Your task to perform on an android device: Show me productivity apps on the Play Store Image 0: 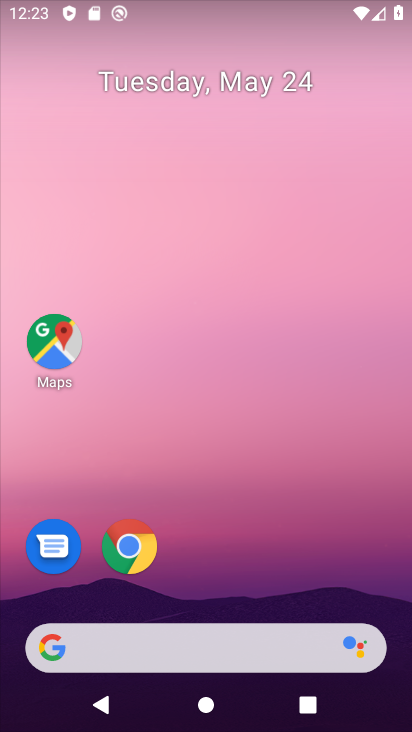
Step 0: drag from (348, 676) to (368, 23)
Your task to perform on an android device: Show me productivity apps on the Play Store Image 1: 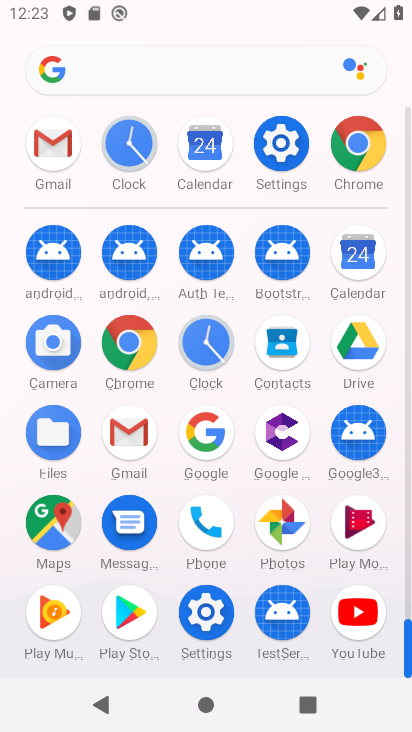
Step 1: click (121, 608)
Your task to perform on an android device: Show me productivity apps on the Play Store Image 2: 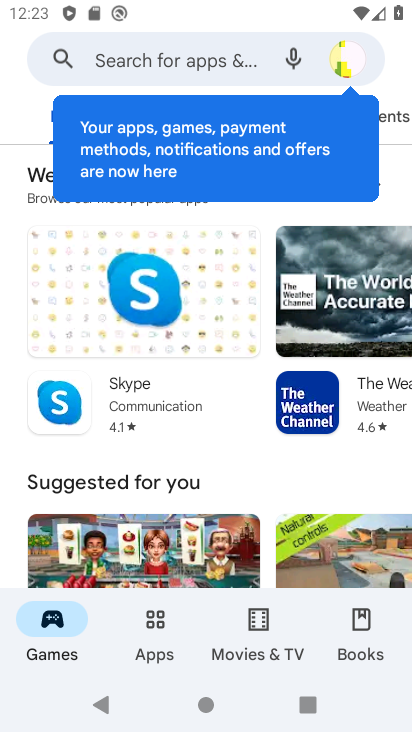
Step 2: click (153, 624)
Your task to perform on an android device: Show me productivity apps on the Play Store Image 3: 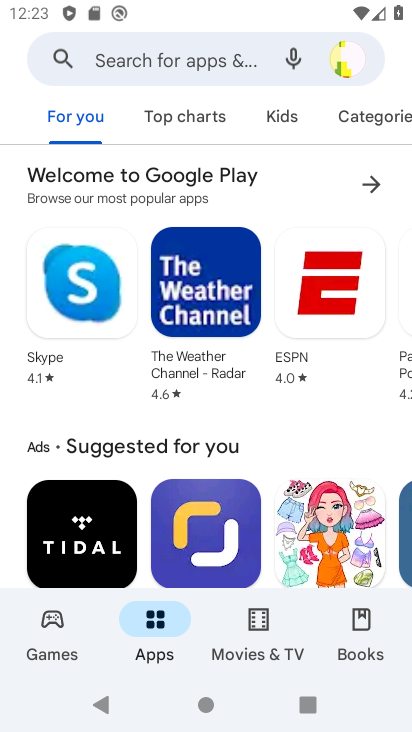
Step 3: drag from (330, 550) to (372, 67)
Your task to perform on an android device: Show me productivity apps on the Play Store Image 4: 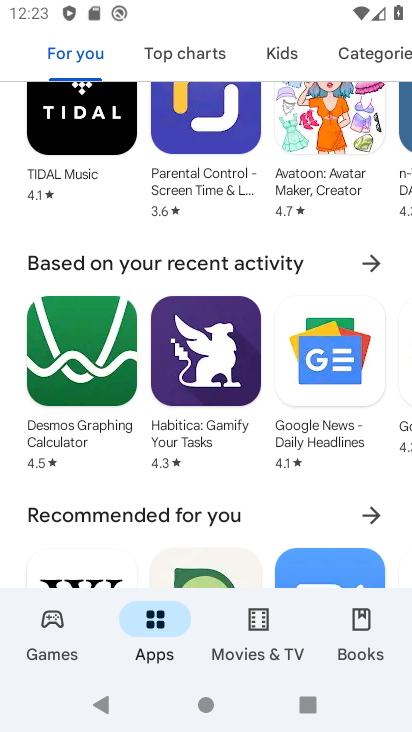
Step 4: drag from (256, 510) to (303, 27)
Your task to perform on an android device: Show me productivity apps on the Play Store Image 5: 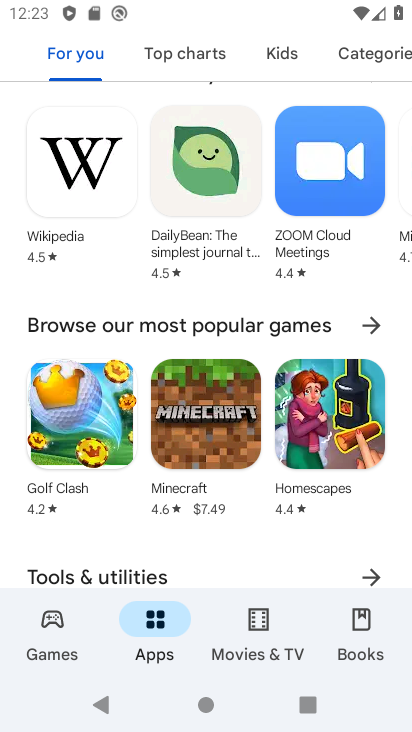
Step 5: drag from (293, 526) to (309, 140)
Your task to perform on an android device: Show me productivity apps on the Play Store Image 6: 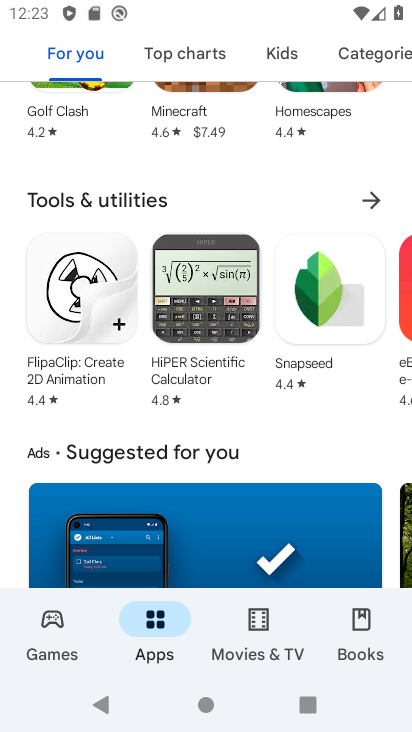
Step 6: drag from (346, 479) to (390, 26)
Your task to perform on an android device: Show me productivity apps on the Play Store Image 7: 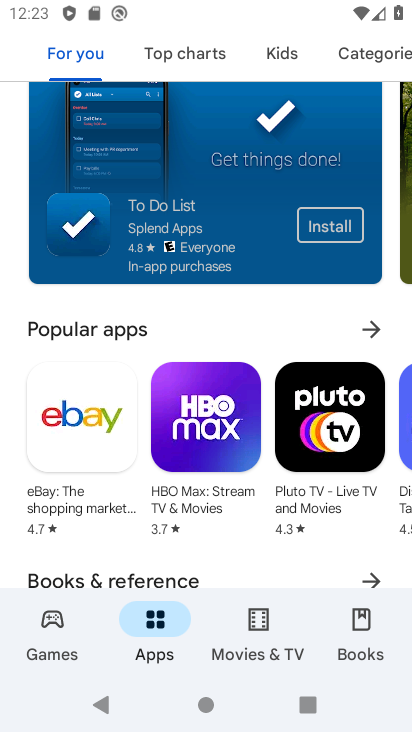
Step 7: drag from (288, 422) to (280, 154)
Your task to perform on an android device: Show me productivity apps on the Play Store Image 8: 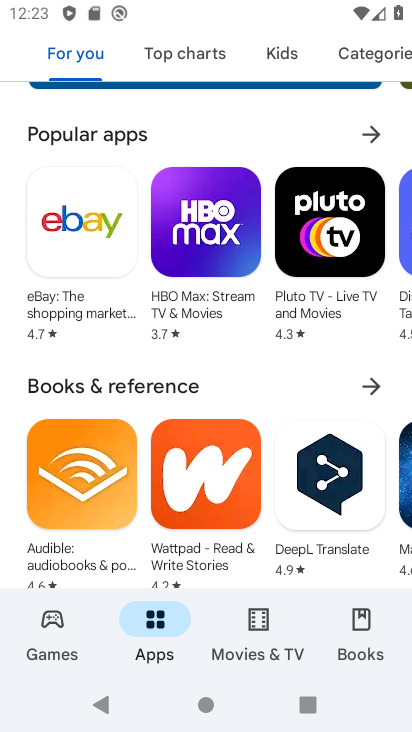
Step 8: drag from (306, 544) to (313, 87)
Your task to perform on an android device: Show me productivity apps on the Play Store Image 9: 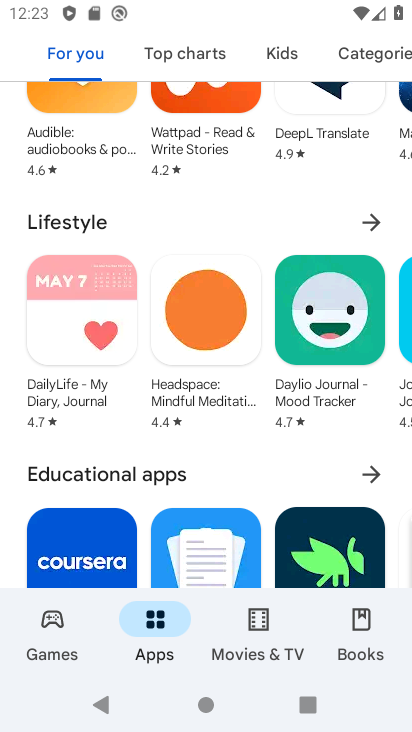
Step 9: drag from (300, 584) to (324, 79)
Your task to perform on an android device: Show me productivity apps on the Play Store Image 10: 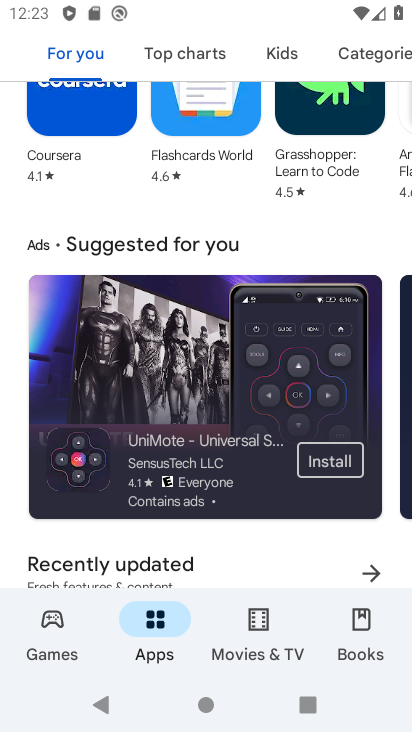
Step 10: drag from (299, 484) to (349, 116)
Your task to perform on an android device: Show me productivity apps on the Play Store Image 11: 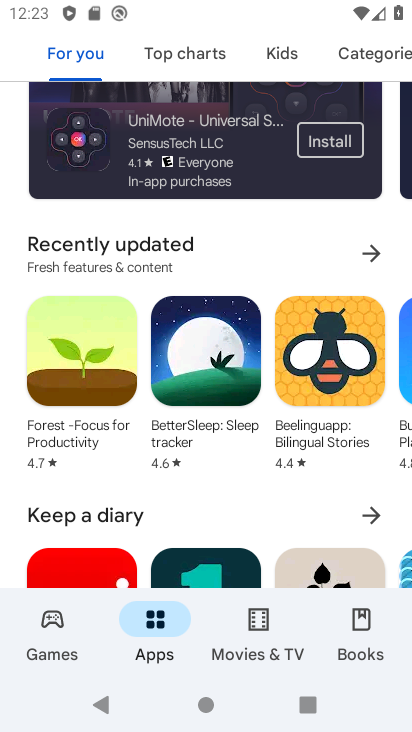
Step 11: drag from (312, 531) to (328, 136)
Your task to perform on an android device: Show me productivity apps on the Play Store Image 12: 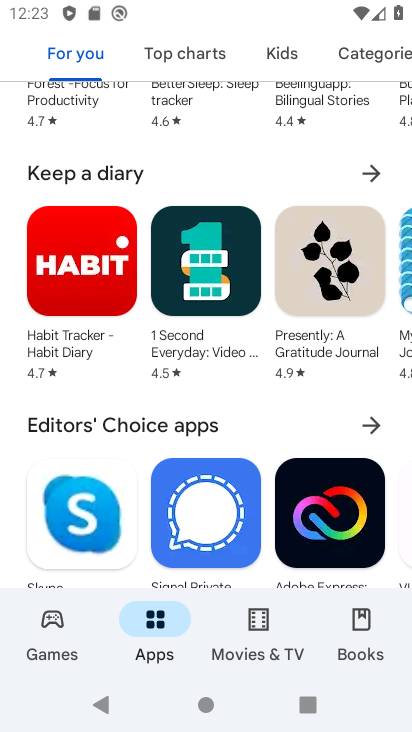
Step 12: drag from (331, 528) to (365, 130)
Your task to perform on an android device: Show me productivity apps on the Play Store Image 13: 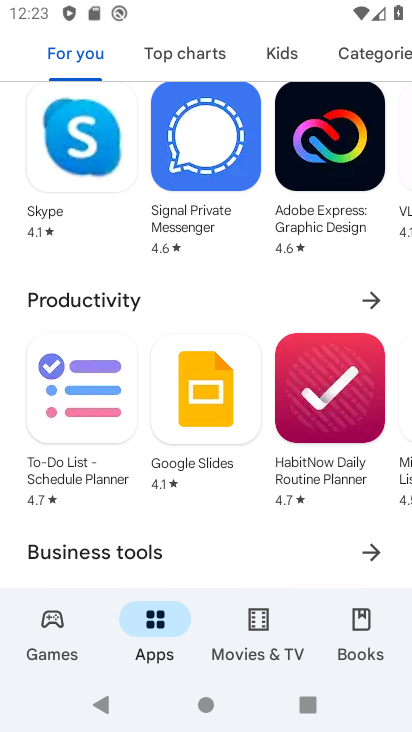
Step 13: click (362, 296)
Your task to perform on an android device: Show me productivity apps on the Play Store Image 14: 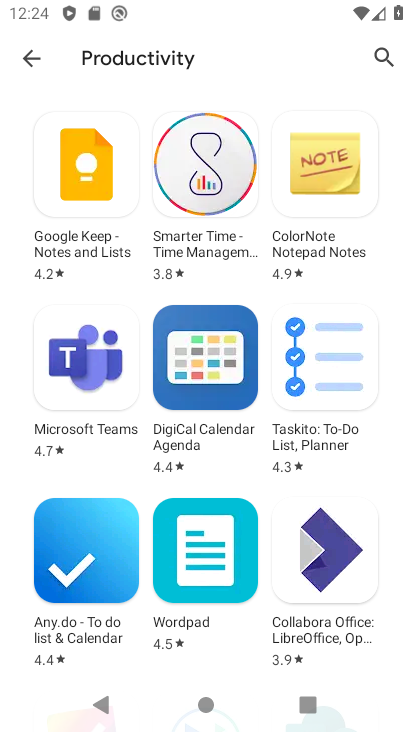
Step 14: task complete